Your task to perform on an android device: Go to battery settings Image 0: 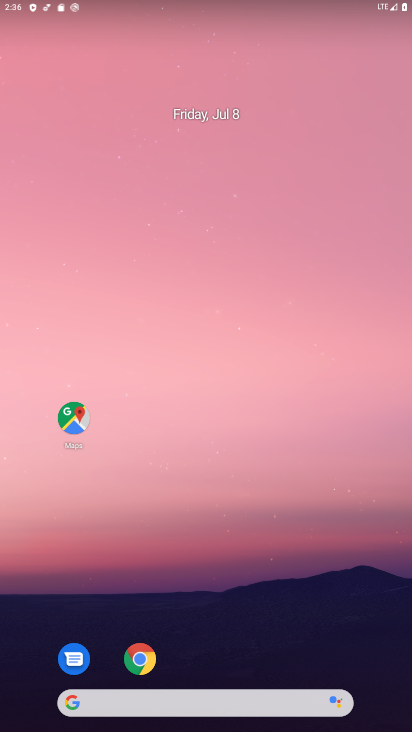
Step 0: press home button
Your task to perform on an android device: Go to battery settings Image 1: 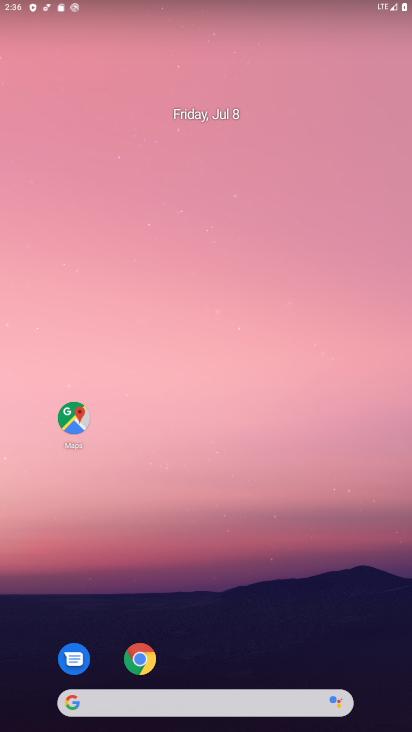
Step 1: drag from (220, 670) to (279, 51)
Your task to perform on an android device: Go to battery settings Image 2: 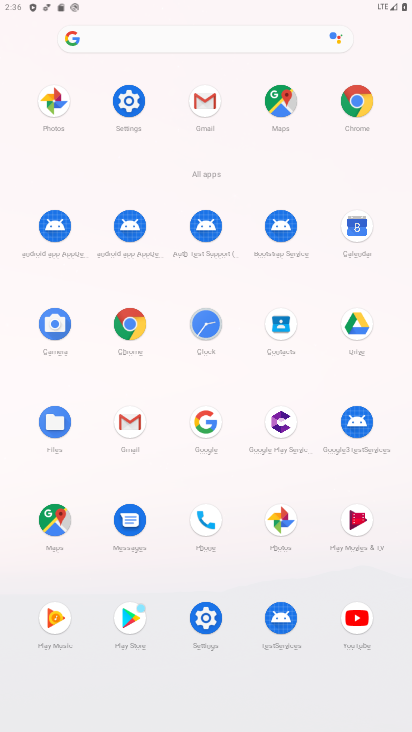
Step 2: click (127, 98)
Your task to perform on an android device: Go to battery settings Image 3: 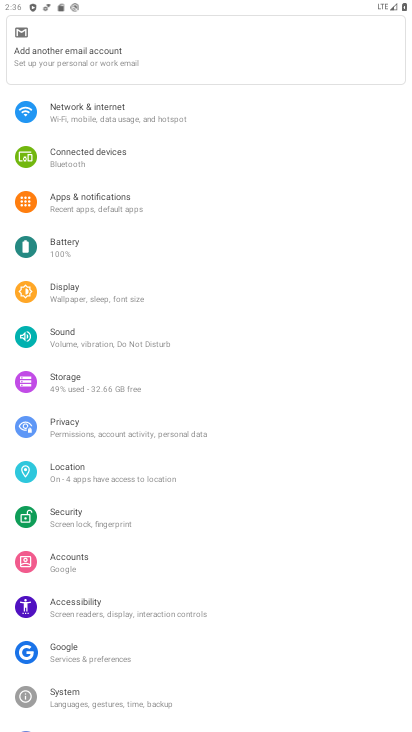
Step 3: click (87, 248)
Your task to perform on an android device: Go to battery settings Image 4: 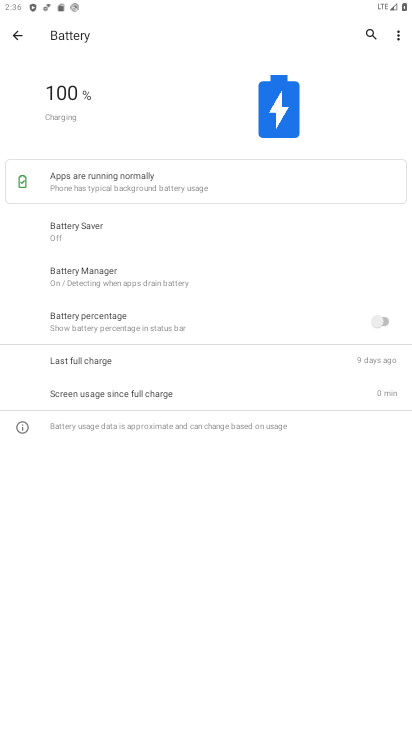
Step 4: task complete